Your task to perform on an android device: turn on improve location accuracy Image 0: 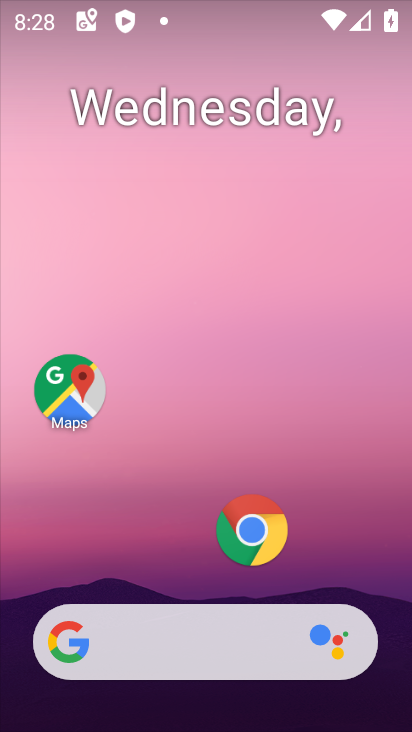
Step 0: drag from (156, 553) to (244, 66)
Your task to perform on an android device: turn on improve location accuracy Image 1: 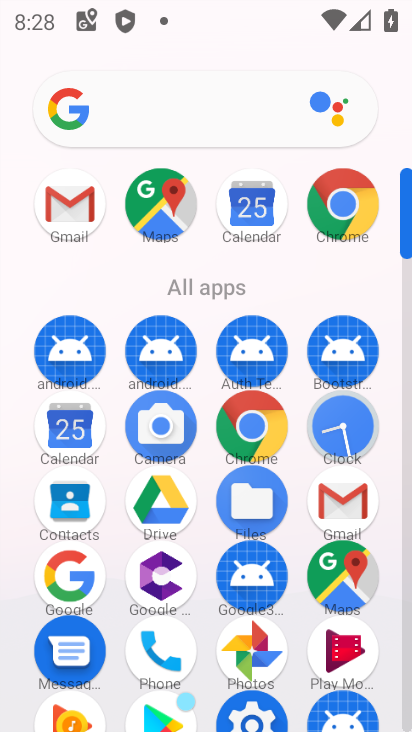
Step 1: click (251, 702)
Your task to perform on an android device: turn on improve location accuracy Image 2: 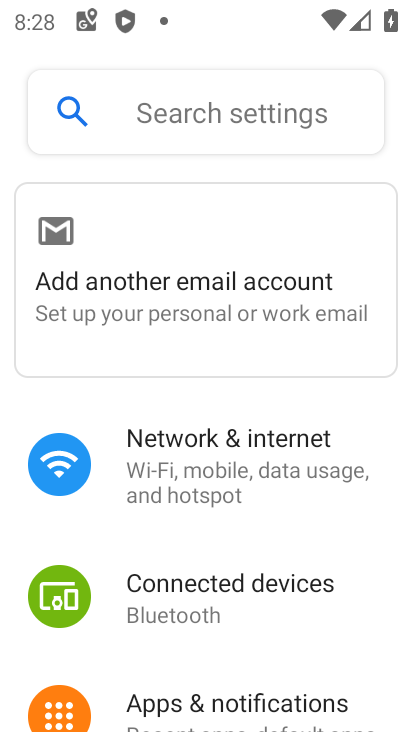
Step 2: drag from (225, 688) to (307, 170)
Your task to perform on an android device: turn on improve location accuracy Image 3: 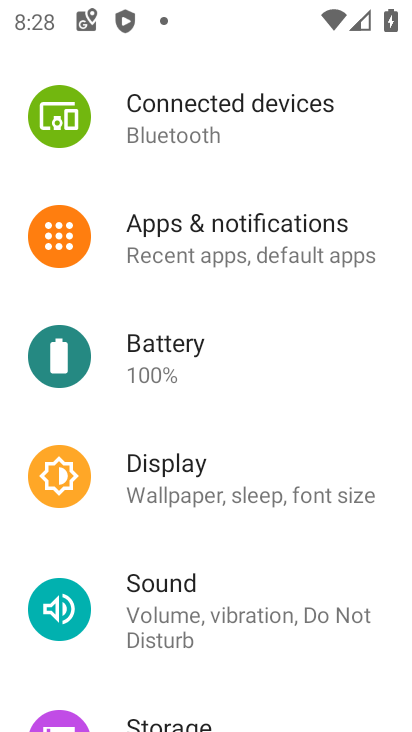
Step 3: drag from (216, 665) to (277, 214)
Your task to perform on an android device: turn on improve location accuracy Image 4: 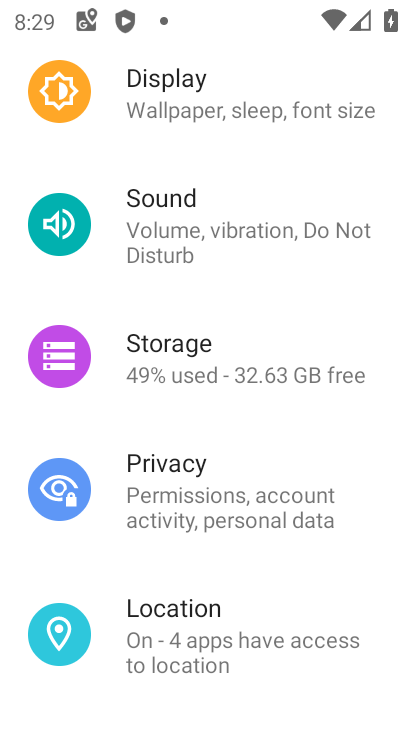
Step 4: click (214, 617)
Your task to perform on an android device: turn on improve location accuracy Image 5: 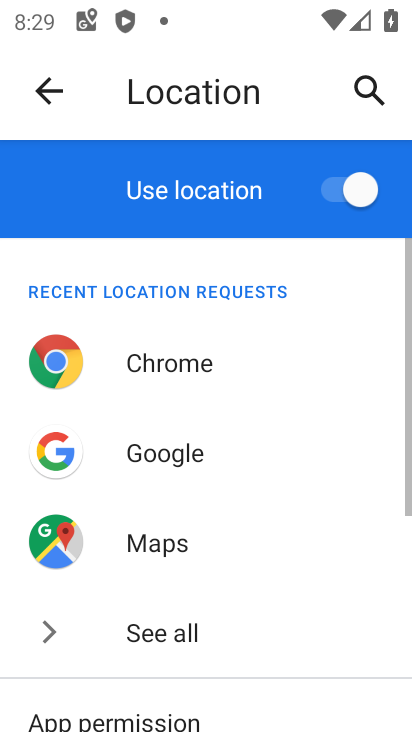
Step 5: drag from (178, 689) to (277, 152)
Your task to perform on an android device: turn on improve location accuracy Image 6: 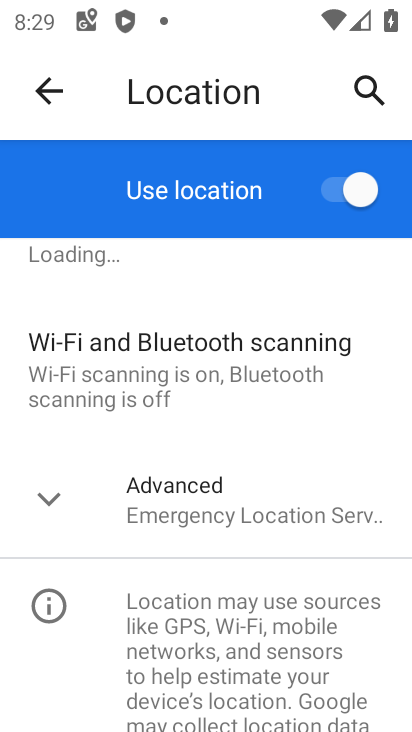
Step 6: click (220, 489)
Your task to perform on an android device: turn on improve location accuracy Image 7: 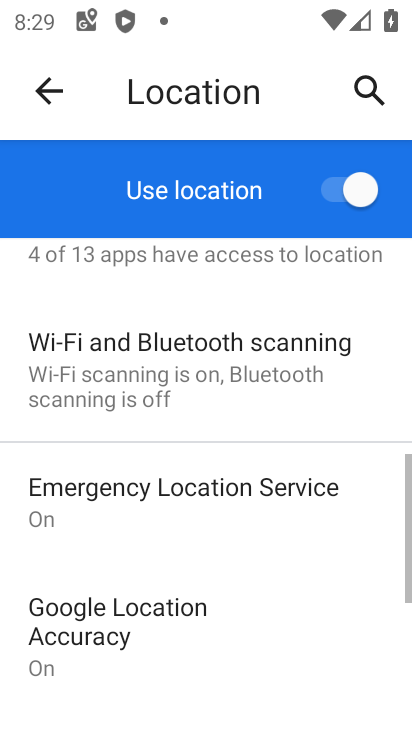
Step 7: click (125, 602)
Your task to perform on an android device: turn on improve location accuracy Image 8: 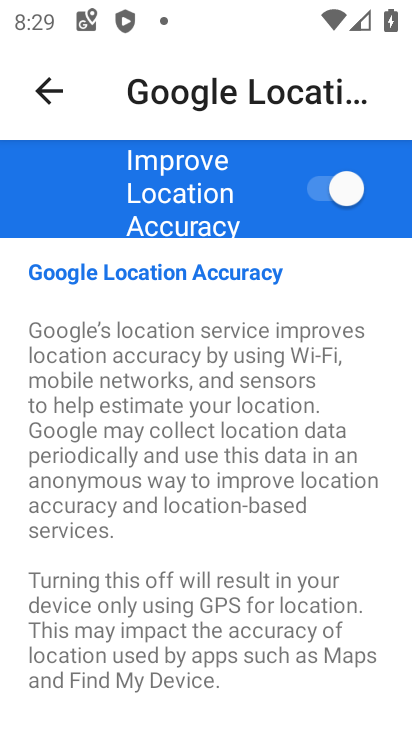
Step 8: task complete